Your task to perform on an android device: toggle notifications settings in the gmail app Image 0: 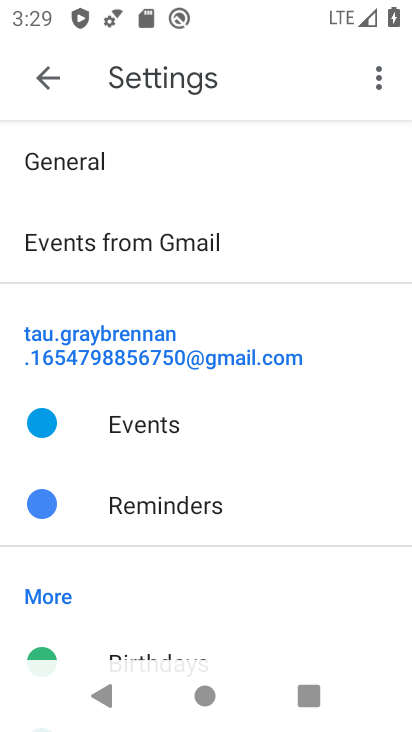
Step 0: press home button
Your task to perform on an android device: toggle notifications settings in the gmail app Image 1: 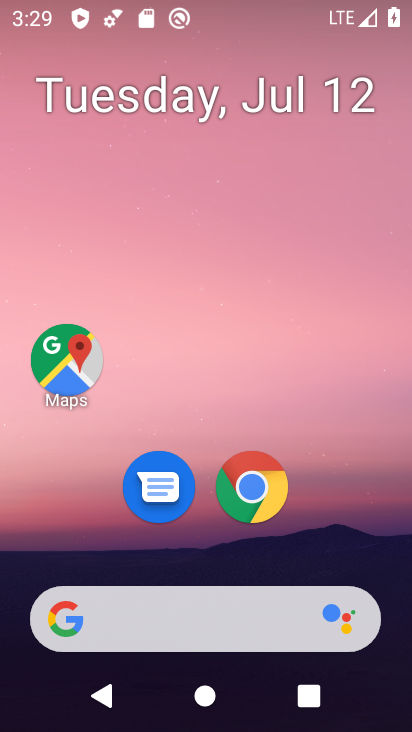
Step 1: drag from (242, 627) to (254, 213)
Your task to perform on an android device: toggle notifications settings in the gmail app Image 2: 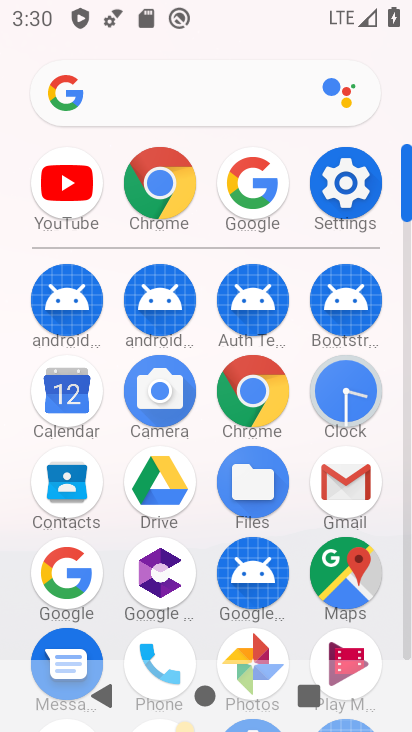
Step 2: click (354, 491)
Your task to perform on an android device: toggle notifications settings in the gmail app Image 3: 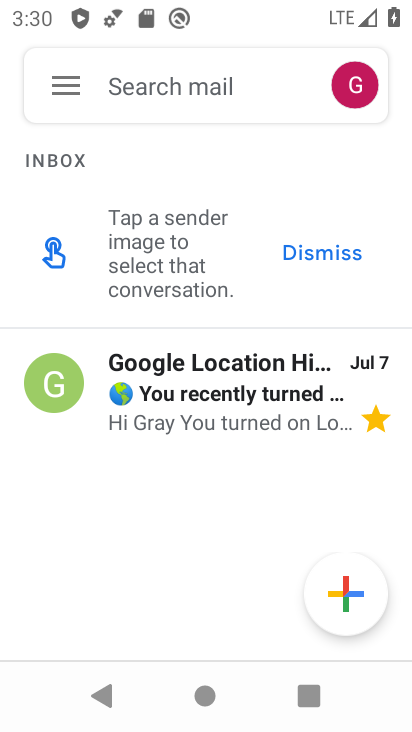
Step 3: click (68, 97)
Your task to perform on an android device: toggle notifications settings in the gmail app Image 4: 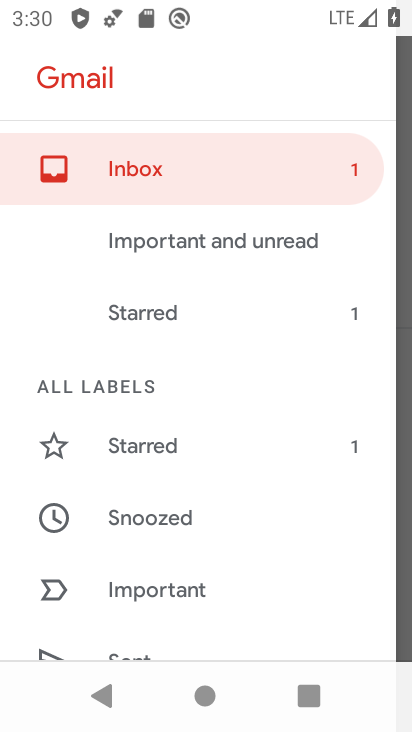
Step 4: drag from (189, 575) to (251, 105)
Your task to perform on an android device: toggle notifications settings in the gmail app Image 5: 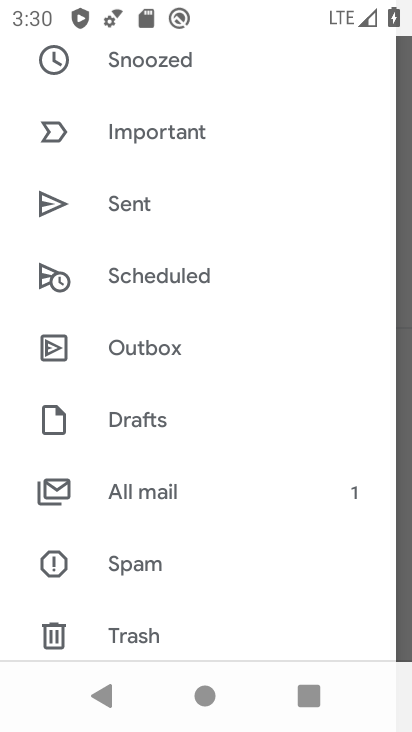
Step 5: drag from (209, 539) to (263, 220)
Your task to perform on an android device: toggle notifications settings in the gmail app Image 6: 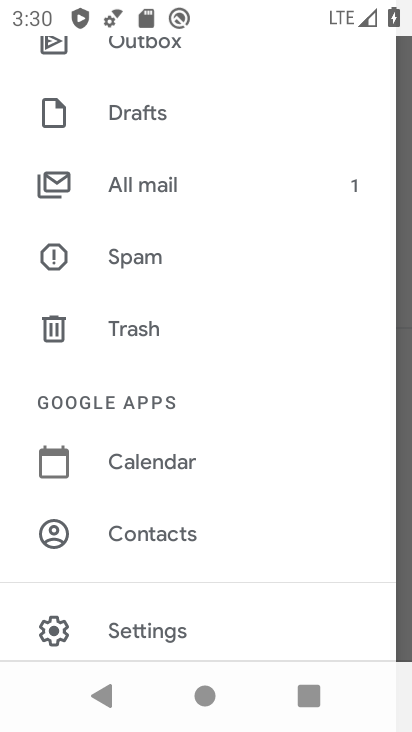
Step 6: click (141, 633)
Your task to perform on an android device: toggle notifications settings in the gmail app Image 7: 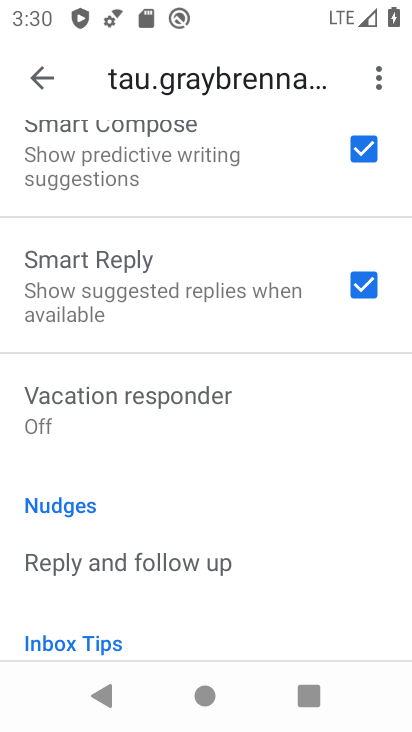
Step 7: drag from (197, 284) to (170, 568)
Your task to perform on an android device: toggle notifications settings in the gmail app Image 8: 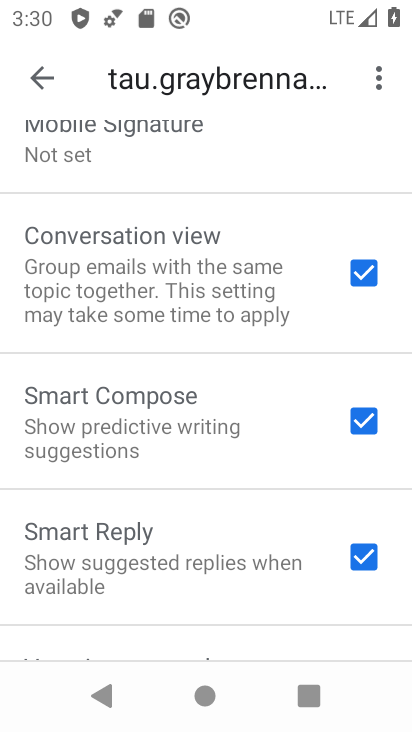
Step 8: click (30, 69)
Your task to perform on an android device: toggle notifications settings in the gmail app Image 9: 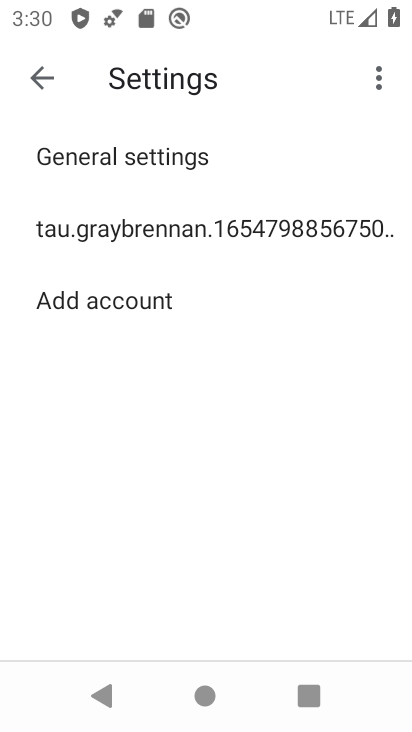
Step 9: click (80, 167)
Your task to perform on an android device: toggle notifications settings in the gmail app Image 10: 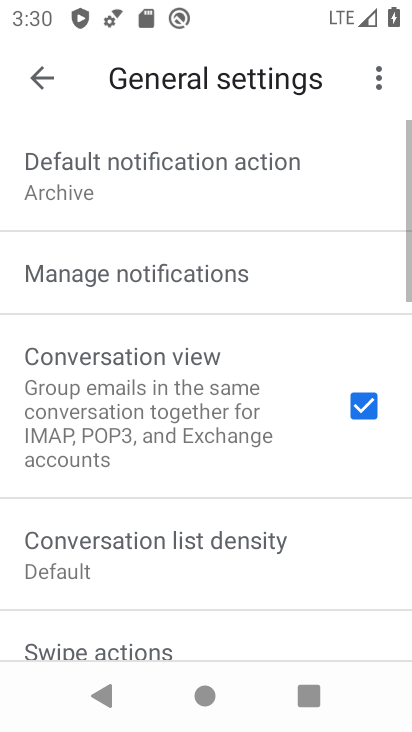
Step 10: click (122, 269)
Your task to perform on an android device: toggle notifications settings in the gmail app Image 11: 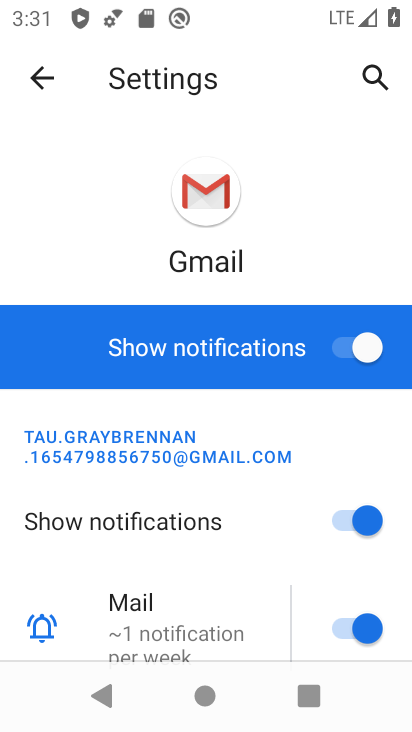
Step 11: click (247, 362)
Your task to perform on an android device: toggle notifications settings in the gmail app Image 12: 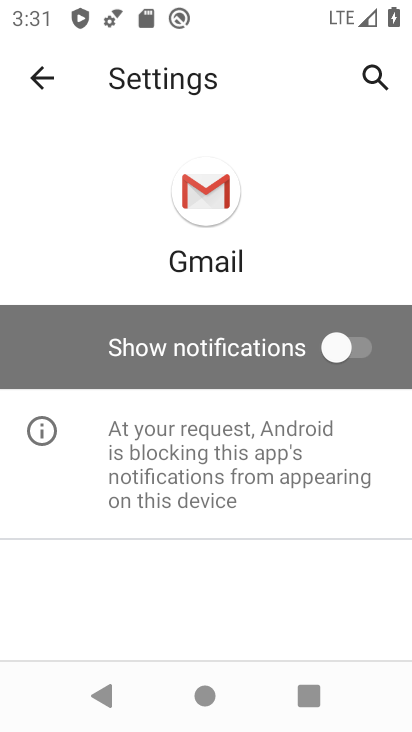
Step 12: task complete